Your task to perform on an android device: turn off location history Image 0: 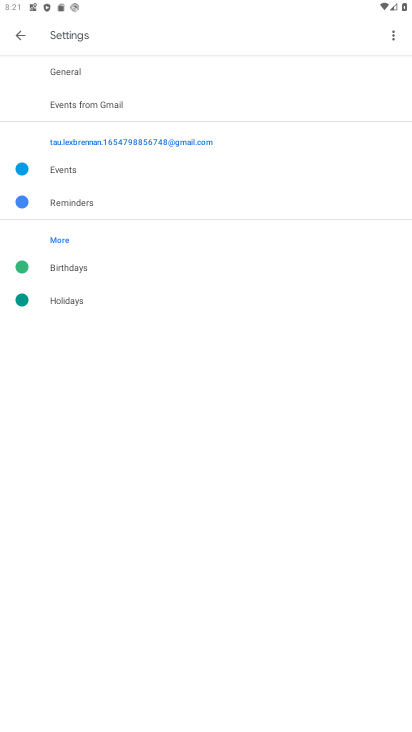
Step 0: press home button
Your task to perform on an android device: turn off location history Image 1: 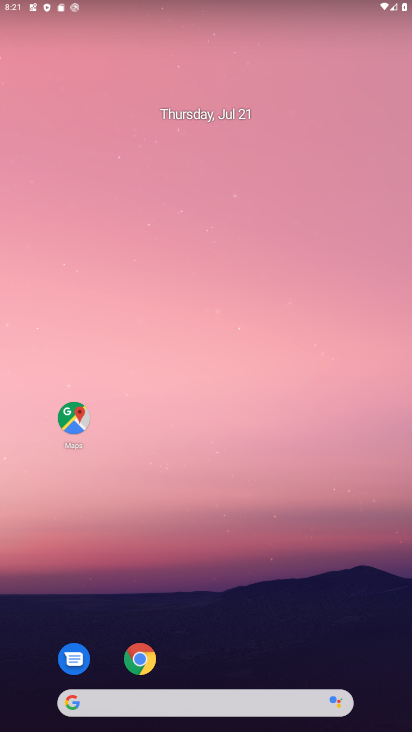
Step 1: drag from (216, 670) to (194, 36)
Your task to perform on an android device: turn off location history Image 2: 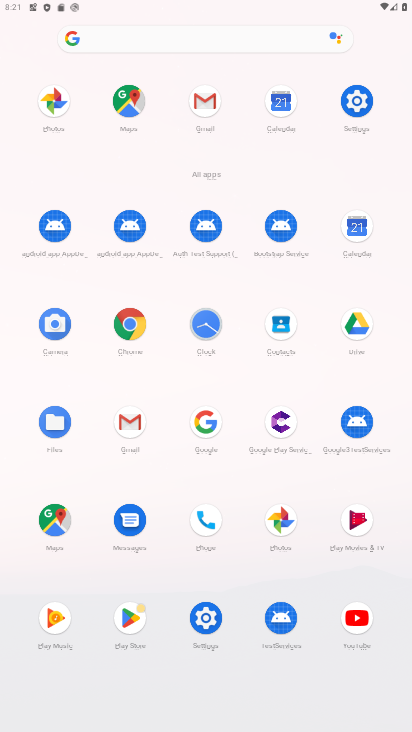
Step 2: click (354, 96)
Your task to perform on an android device: turn off location history Image 3: 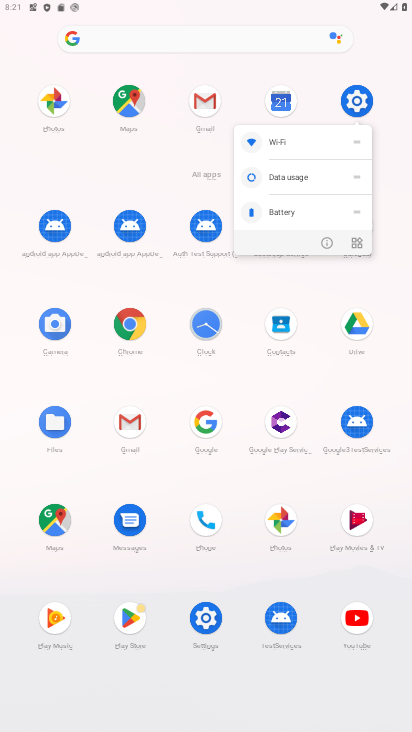
Step 3: click (354, 92)
Your task to perform on an android device: turn off location history Image 4: 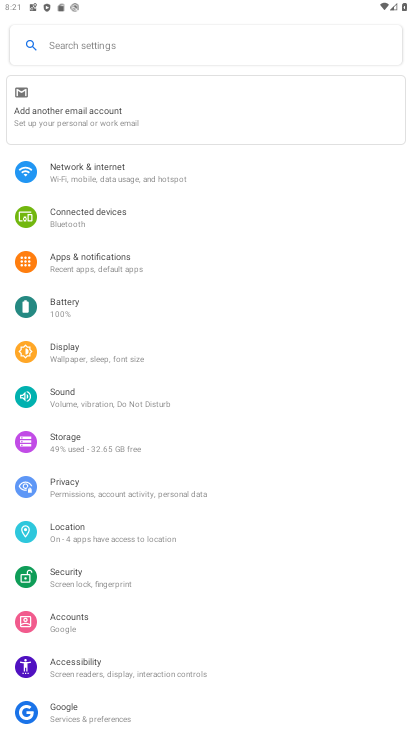
Step 4: click (99, 522)
Your task to perform on an android device: turn off location history Image 5: 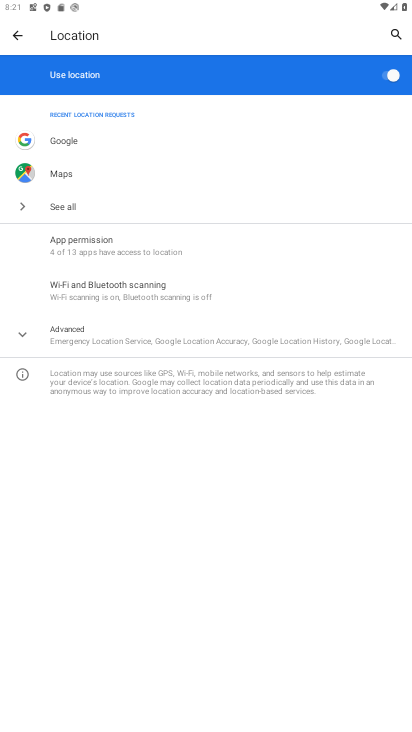
Step 5: click (23, 328)
Your task to perform on an android device: turn off location history Image 6: 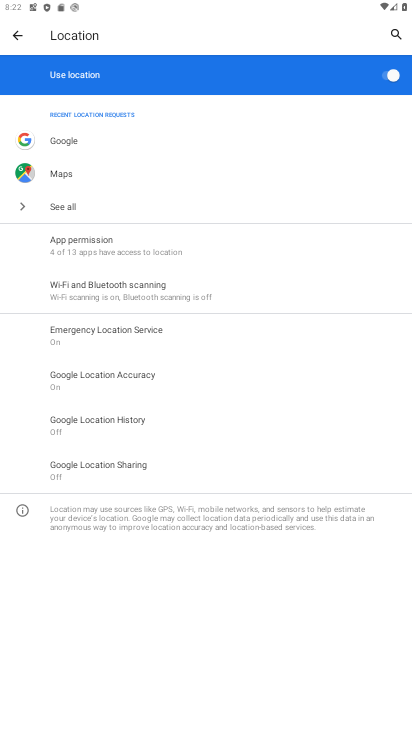
Step 6: click (100, 424)
Your task to perform on an android device: turn off location history Image 7: 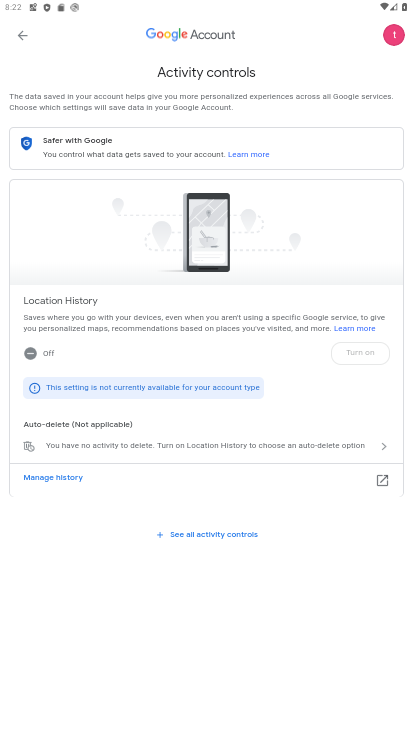
Step 7: task complete